Your task to perform on an android device: Turn off the flashlight Image 0: 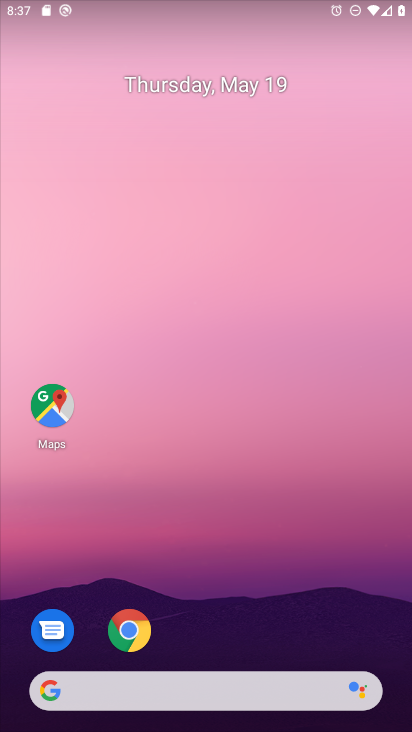
Step 0: drag from (216, 624) to (265, 116)
Your task to perform on an android device: Turn off the flashlight Image 1: 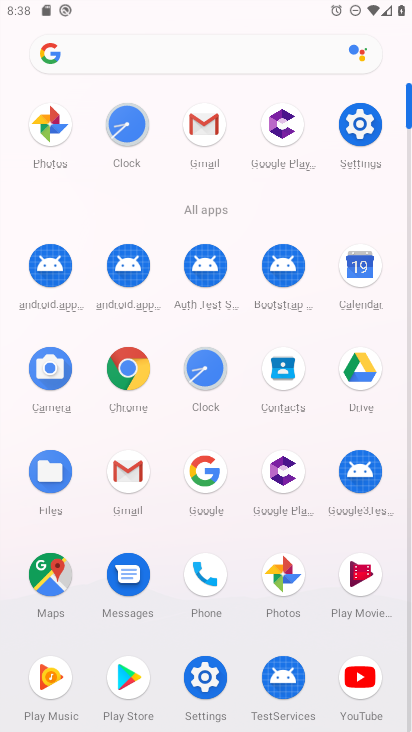
Step 1: click (364, 111)
Your task to perform on an android device: Turn off the flashlight Image 2: 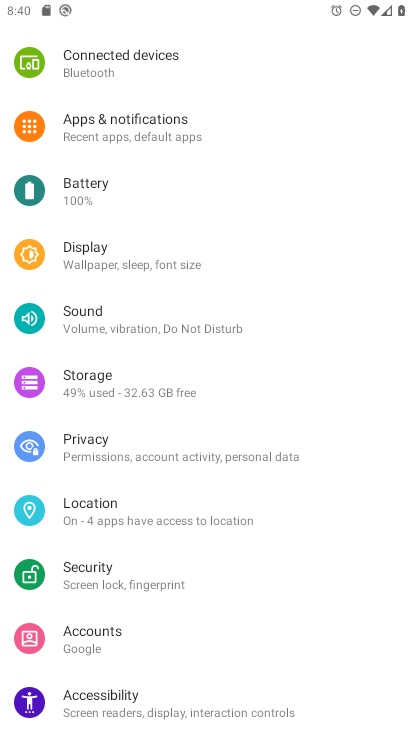
Step 2: task complete